Your task to perform on an android device: check android version Image 0: 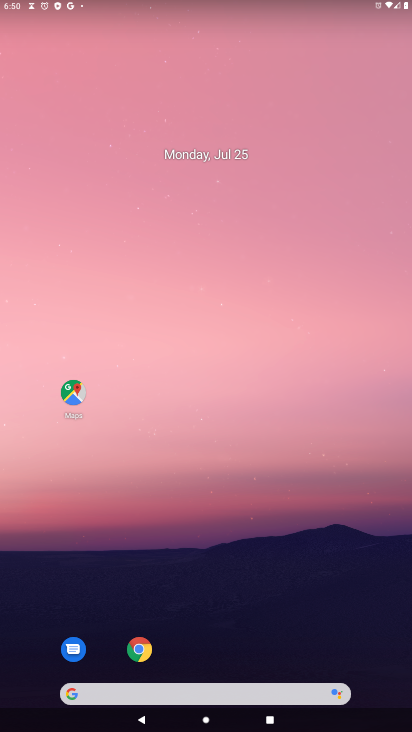
Step 0: drag from (257, 648) to (314, 5)
Your task to perform on an android device: check android version Image 1: 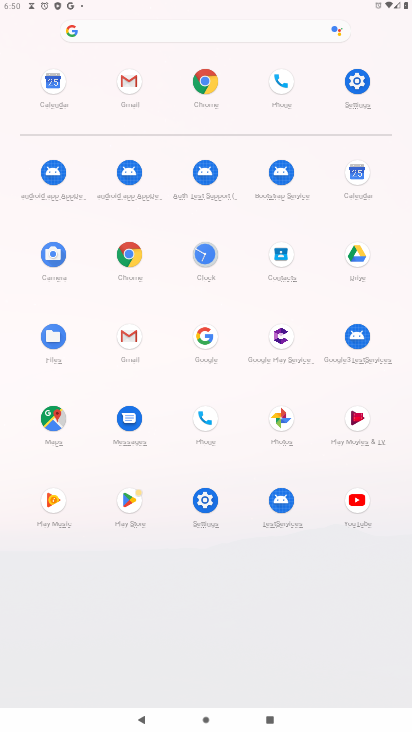
Step 1: click (346, 90)
Your task to perform on an android device: check android version Image 2: 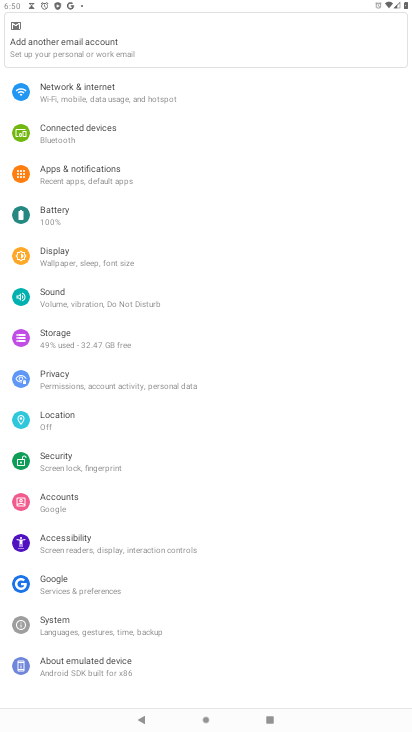
Step 2: click (116, 658)
Your task to perform on an android device: check android version Image 3: 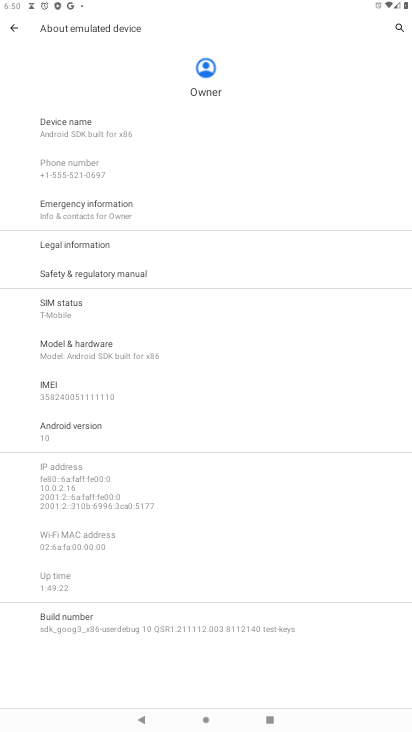
Step 3: click (113, 455)
Your task to perform on an android device: check android version Image 4: 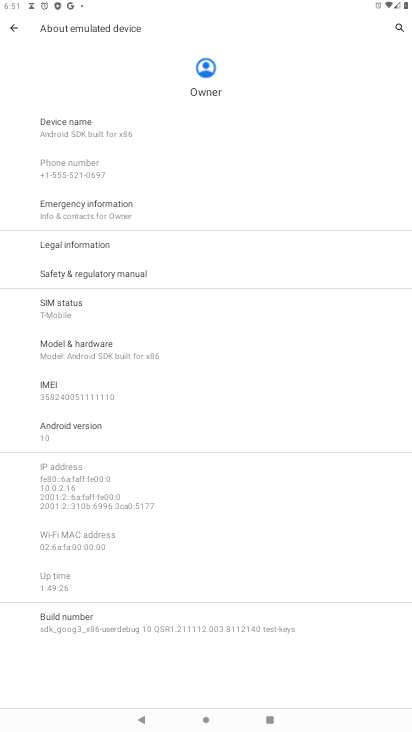
Step 4: task complete